Your task to perform on an android device: turn on the 12-hour format for clock Image 0: 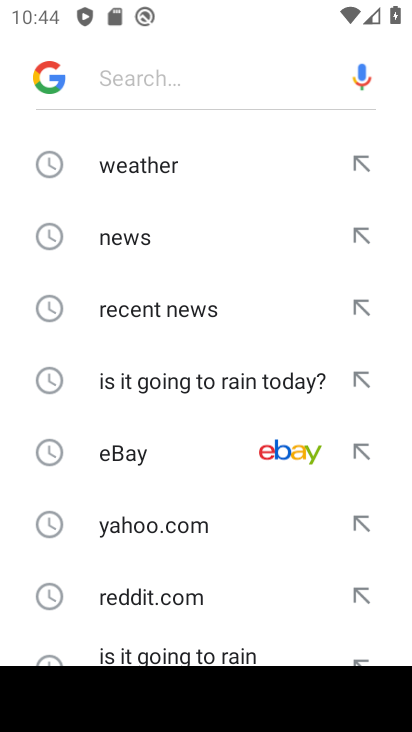
Step 0: press home button
Your task to perform on an android device: turn on the 12-hour format for clock Image 1: 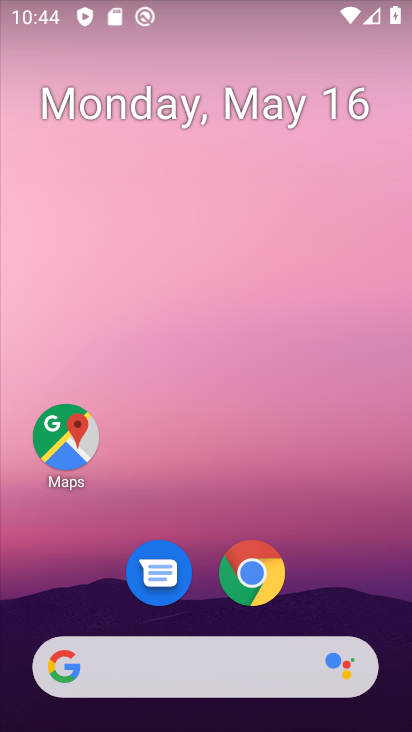
Step 1: drag from (272, 614) to (276, 0)
Your task to perform on an android device: turn on the 12-hour format for clock Image 2: 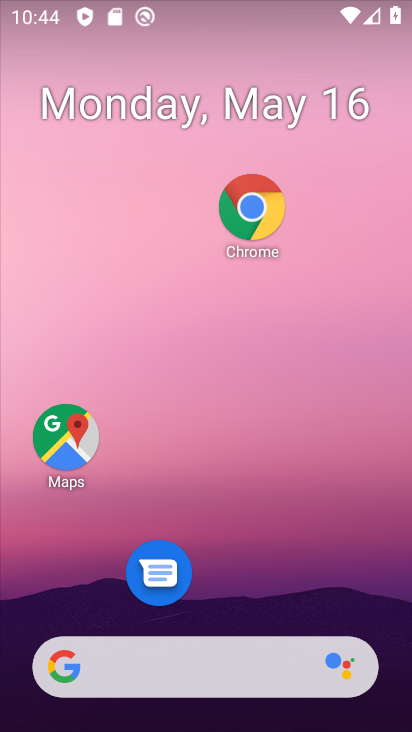
Step 2: drag from (298, 677) to (298, 56)
Your task to perform on an android device: turn on the 12-hour format for clock Image 3: 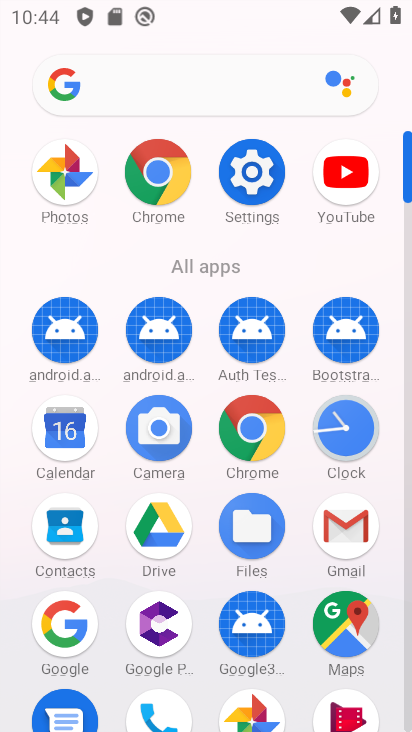
Step 3: click (340, 438)
Your task to perform on an android device: turn on the 12-hour format for clock Image 4: 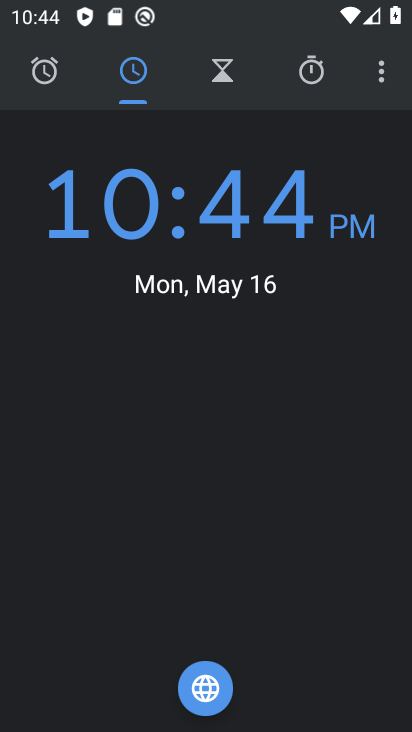
Step 4: click (388, 66)
Your task to perform on an android device: turn on the 12-hour format for clock Image 5: 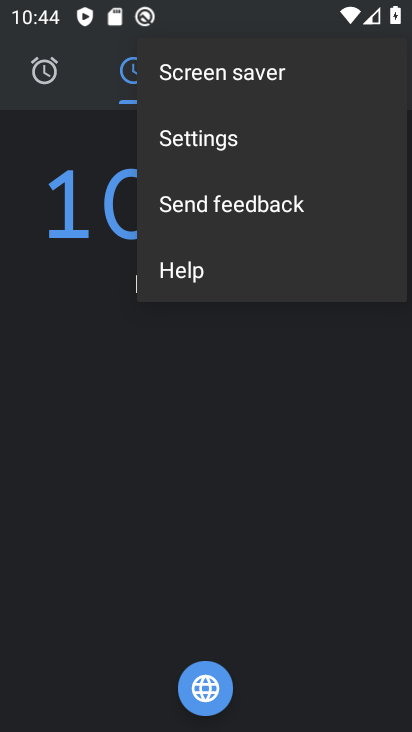
Step 5: click (270, 139)
Your task to perform on an android device: turn on the 12-hour format for clock Image 6: 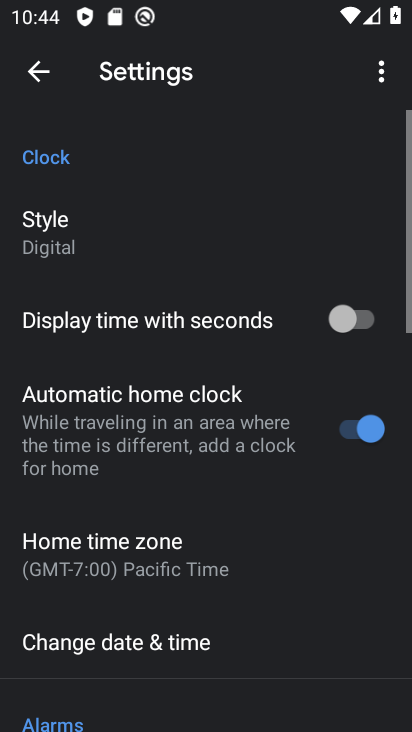
Step 6: drag from (304, 625) to (296, 177)
Your task to perform on an android device: turn on the 12-hour format for clock Image 7: 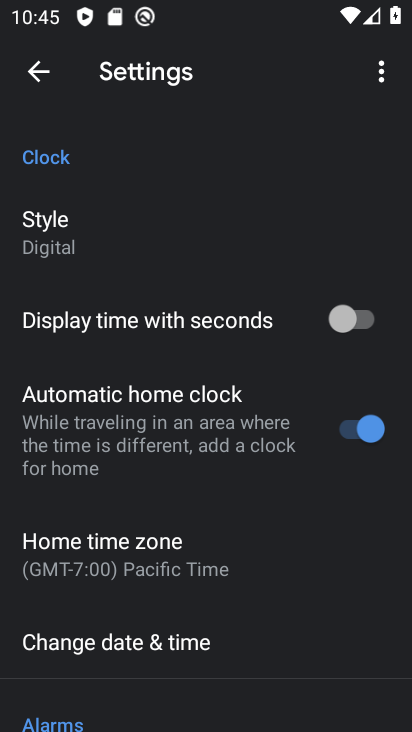
Step 7: click (215, 650)
Your task to perform on an android device: turn on the 12-hour format for clock Image 8: 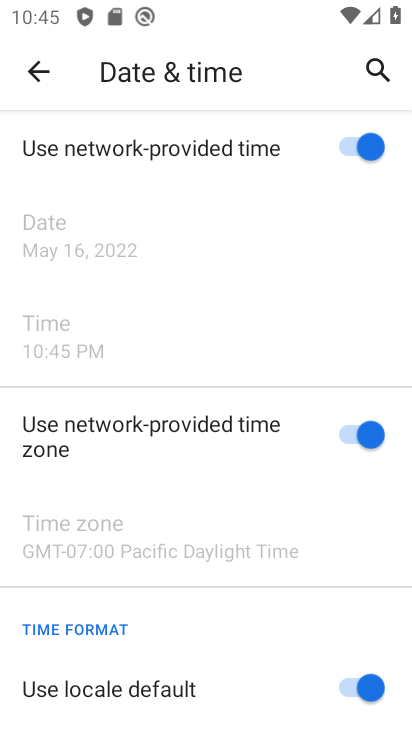
Step 8: drag from (216, 650) to (303, 169)
Your task to perform on an android device: turn on the 12-hour format for clock Image 9: 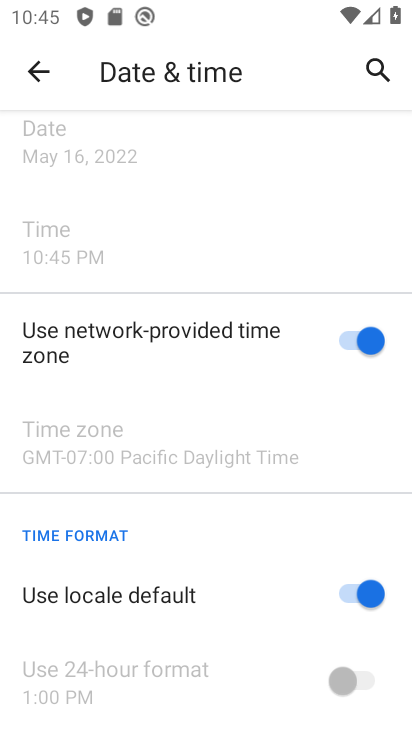
Step 9: click (348, 598)
Your task to perform on an android device: turn on the 12-hour format for clock Image 10: 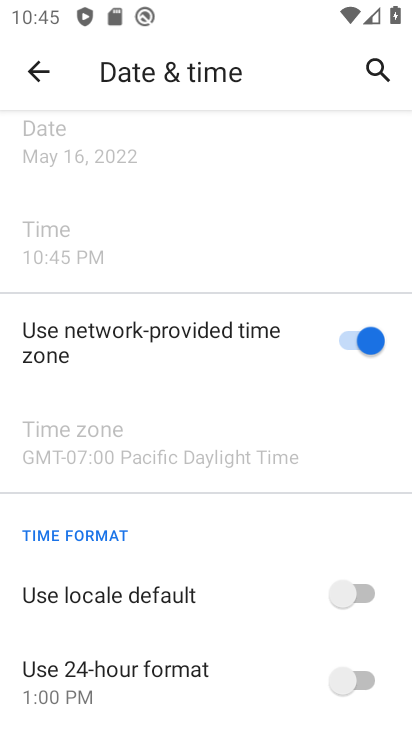
Step 10: task complete